Your task to perform on an android device: Go to privacy settings Image 0: 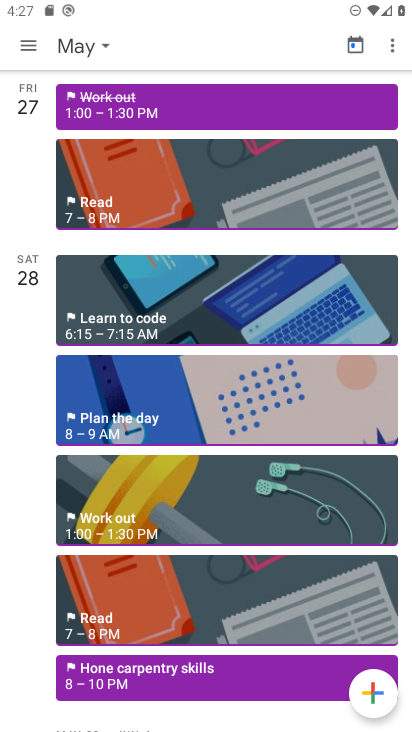
Step 0: press home button
Your task to perform on an android device: Go to privacy settings Image 1: 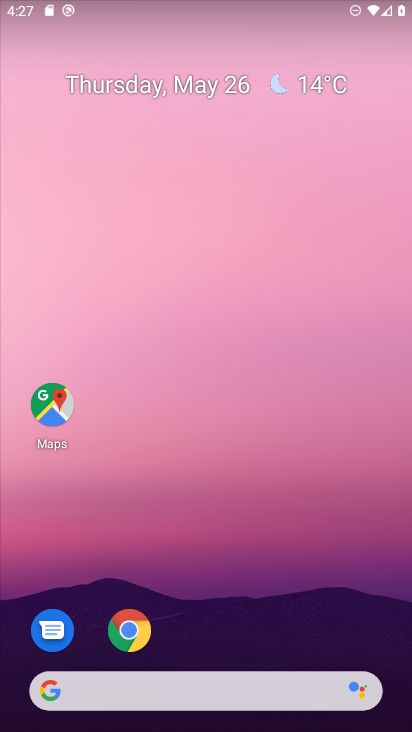
Step 1: drag from (241, 605) to (280, 155)
Your task to perform on an android device: Go to privacy settings Image 2: 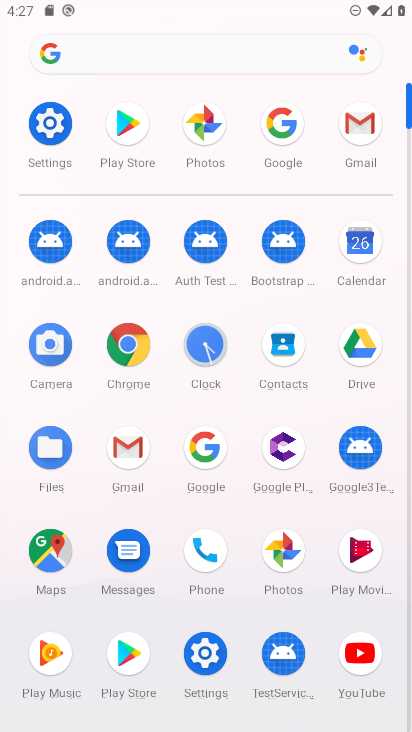
Step 2: click (205, 651)
Your task to perform on an android device: Go to privacy settings Image 3: 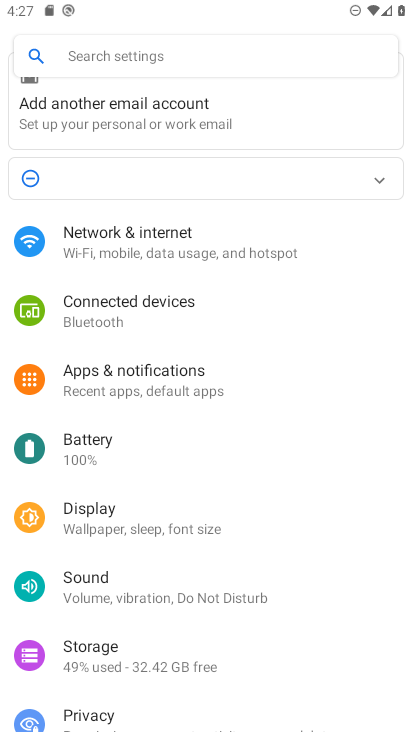
Step 3: drag from (154, 627) to (215, 533)
Your task to perform on an android device: Go to privacy settings Image 4: 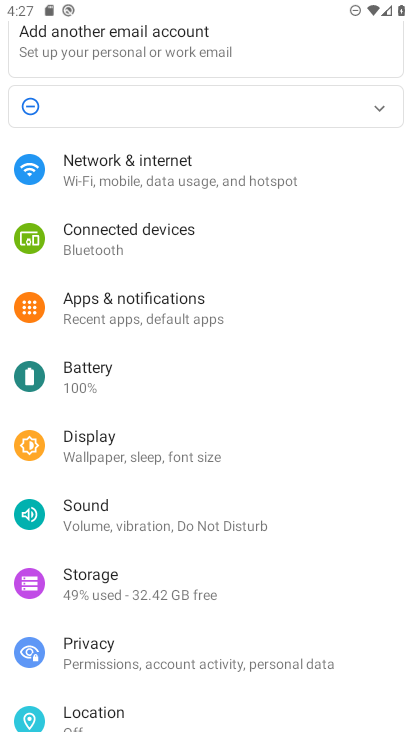
Step 4: click (87, 657)
Your task to perform on an android device: Go to privacy settings Image 5: 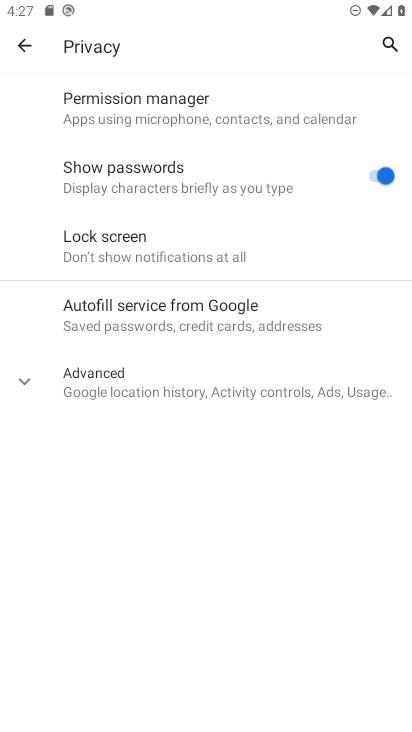
Step 5: task complete